Your task to perform on an android device: set the timer Image 0: 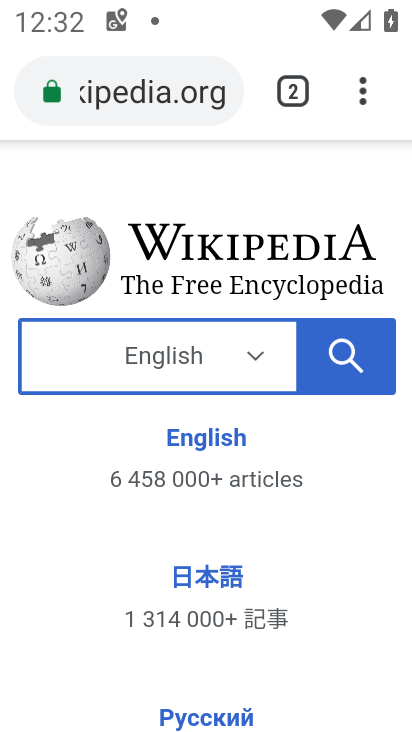
Step 0: press home button
Your task to perform on an android device: set the timer Image 1: 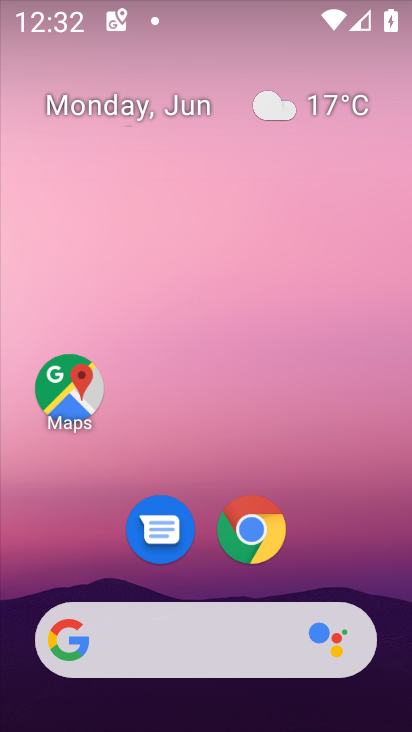
Step 1: drag from (334, 525) to (368, 50)
Your task to perform on an android device: set the timer Image 2: 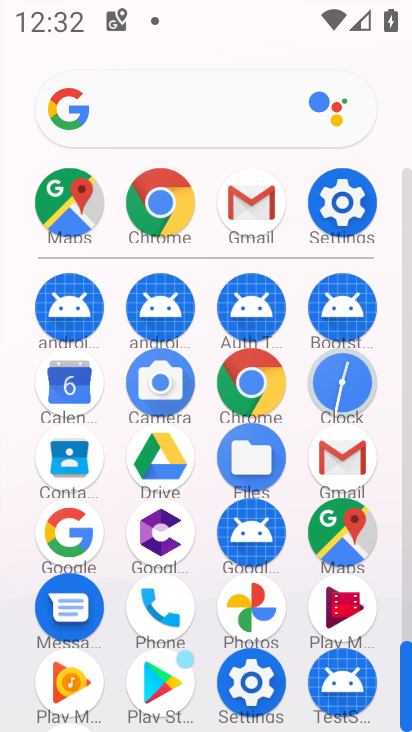
Step 2: click (355, 366)
Your task to perform on an android device: set the timer Image 3: 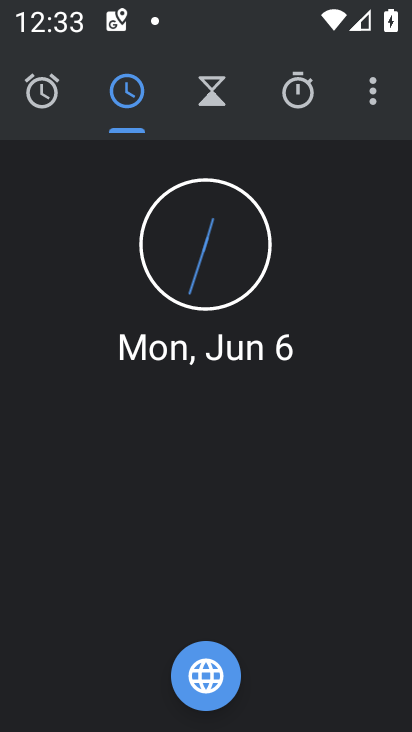
Step 3: click (211, 85)
Your task to perform on an android device: set the timer Image 4: 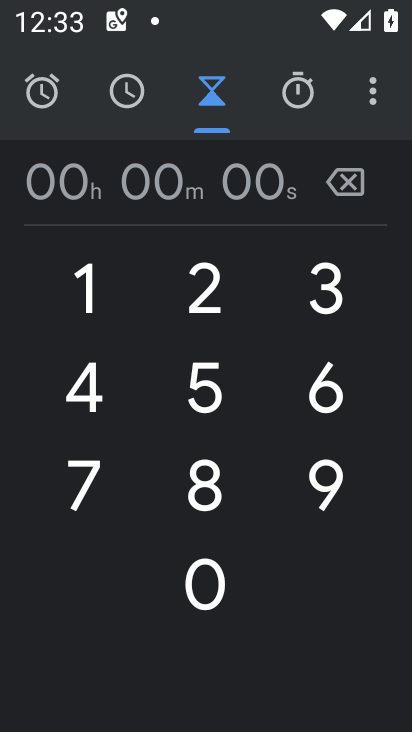
Step 4: click (209, 287)
Your task to perform on an android device: set the timer Image 5: 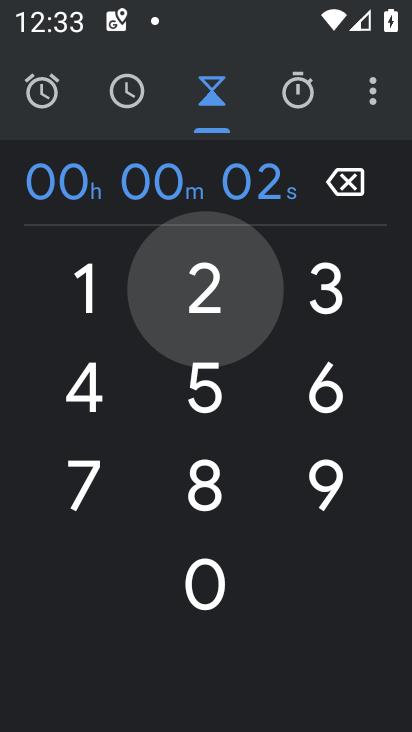
Step 5: click (203, 388)
Your task to perform on an android device: set the timer Image 6: 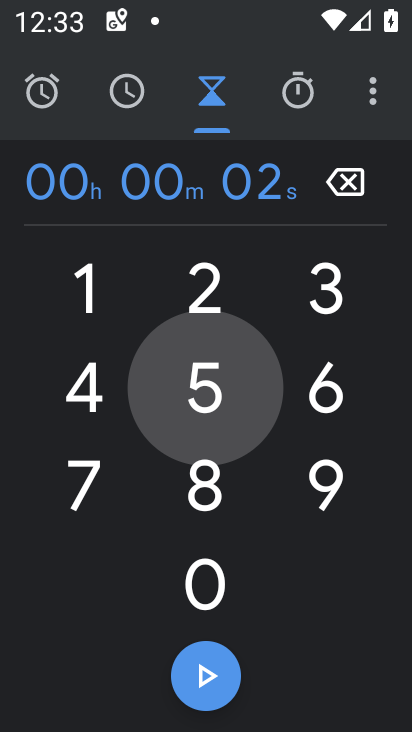
Step 6: click (237, 332)
Your task to perform on an android device: set the timer Image 7: 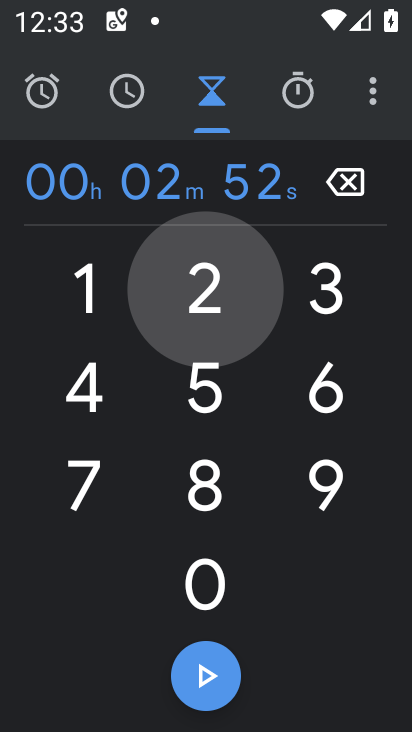
Step 7: click (219, 370)
Your task to perform on an android device: set the timer Image 8: 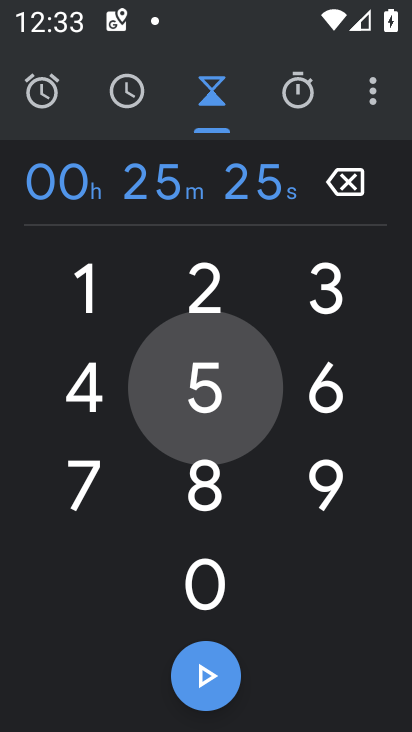
Step 8: click (238, 299)
Your task to perform on an android device: set the timer Image 9: 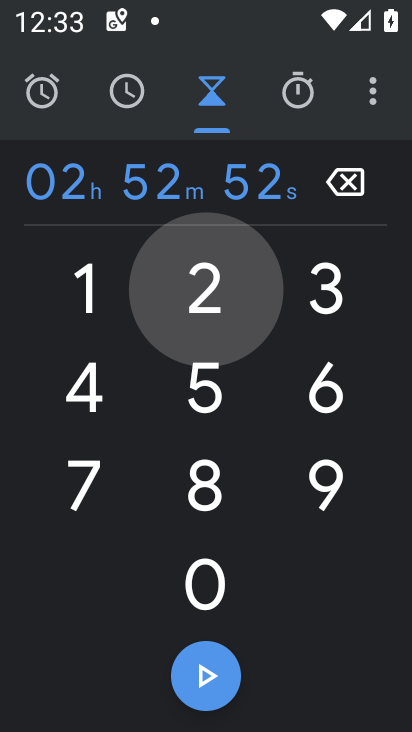
Step 9: click (220, 340)
Your task to perform on an android device: set the timer Image 10: 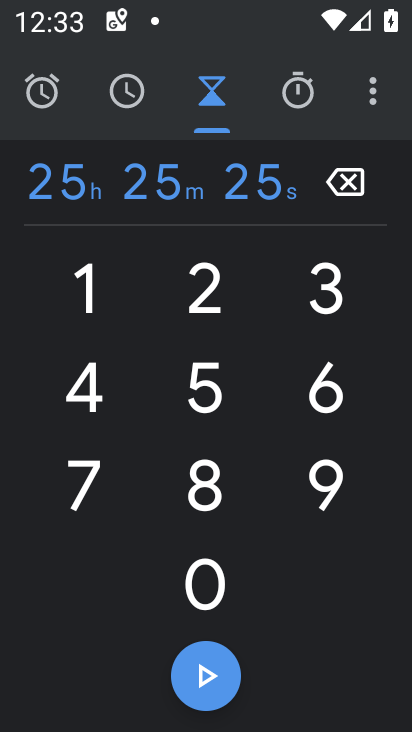
Step 10: click (208, 687)
Your task to perform on an android device: set the timer Image 11: 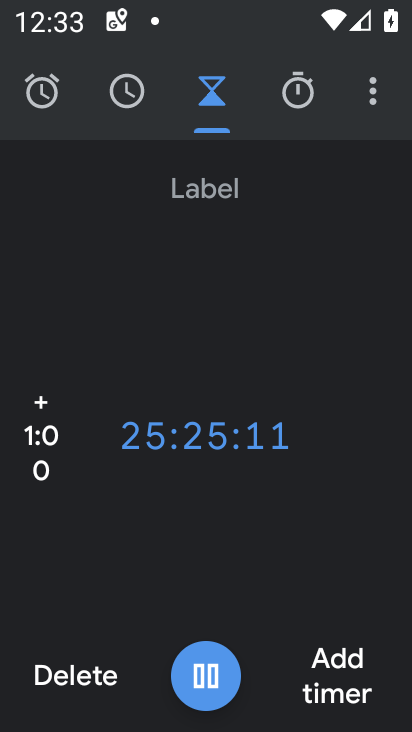
Step 11: task complete